Your task to perform on an android device: toggle data saver in the chrome app Image 0: 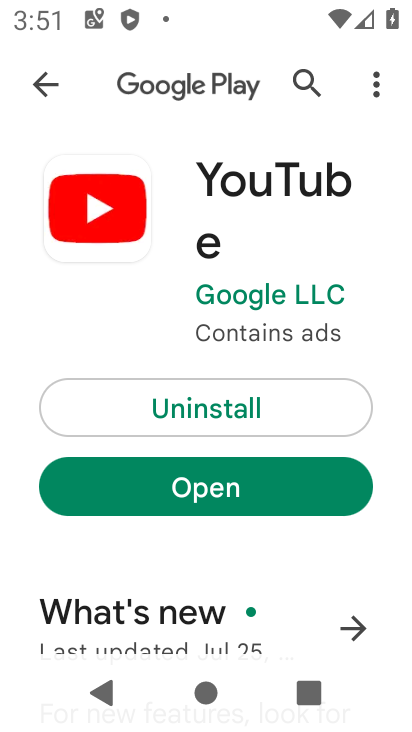
Step 0: press home button
Your task to perform on an android device: toggle data saver in the chrome app Image 1: 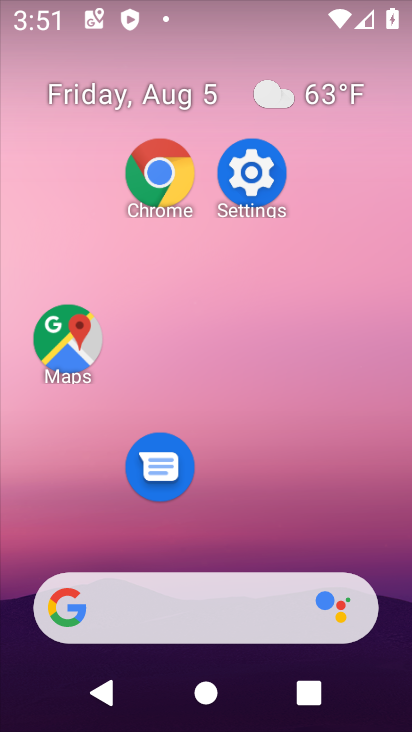
Step 1: click (161, 175)
Your task to perform on an android device: toggle data saver in the chrome app Image 2: 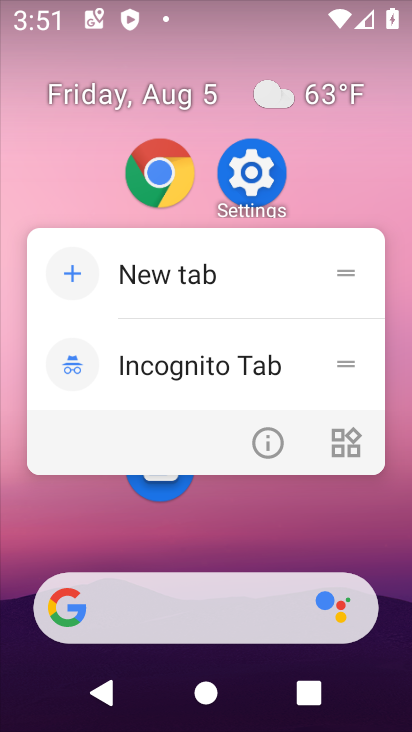
Step 2: click (265, 438)
Your task to perform on an android device: toggle data saver in the chrome app Image 3: 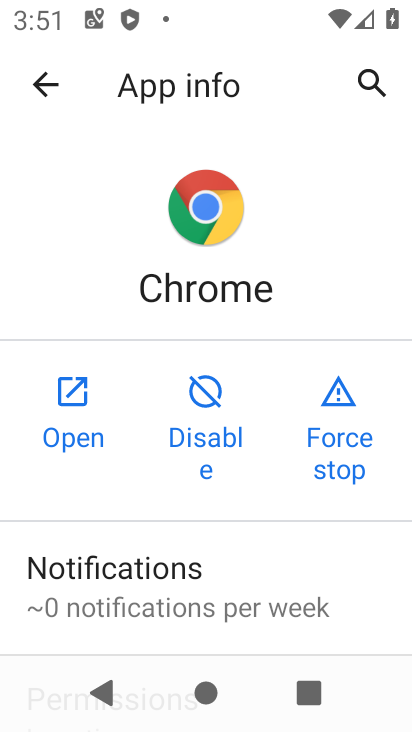
Step 3: click (45, 90)
Your task to perform on an android device: toggle data saver in the chrome app Image 4: 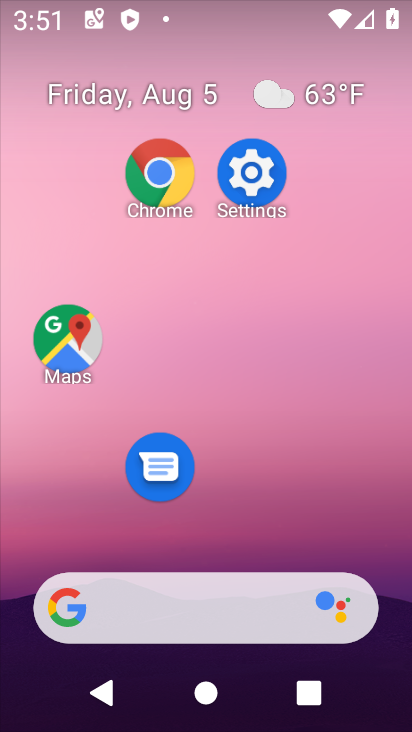
Step 4: click (164, 192)
Your task to perform on an android device: toggle data saver in the chrome app Image 5: 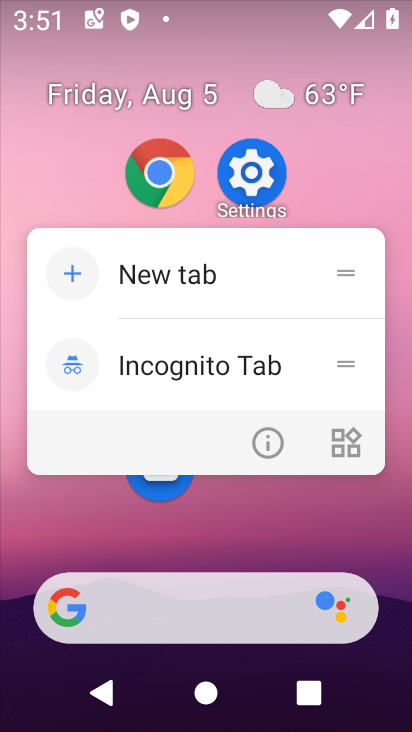
Step 5: click (164, 192)
Your task to perform on an android device: toggle data saver in the chrome app Image 6: 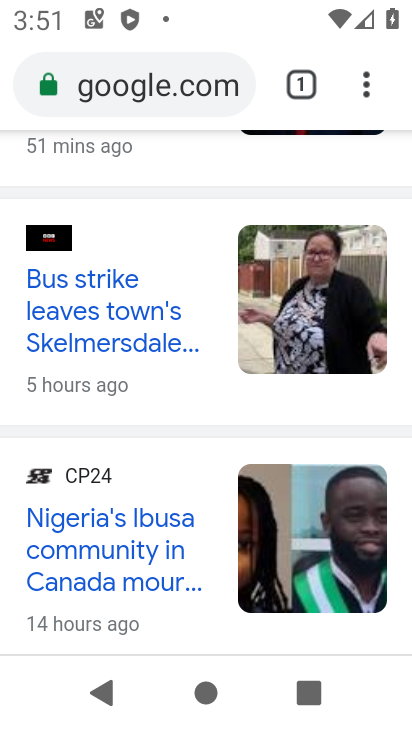
Step 6: drag from (339, 92) to (373, 677)
Your task to perform on an android device: toggle data saver in the chrome app Image 7: 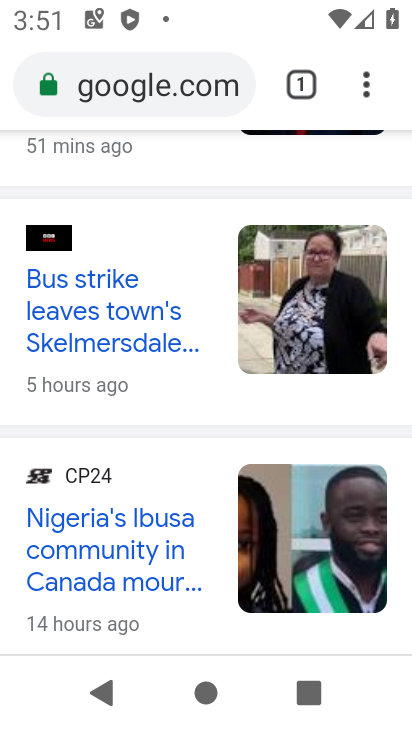
Step 7: drag from (369, 85) to (85, 530)
Your task to perform on an android device: toggle data saver in the chrome app Image 8: 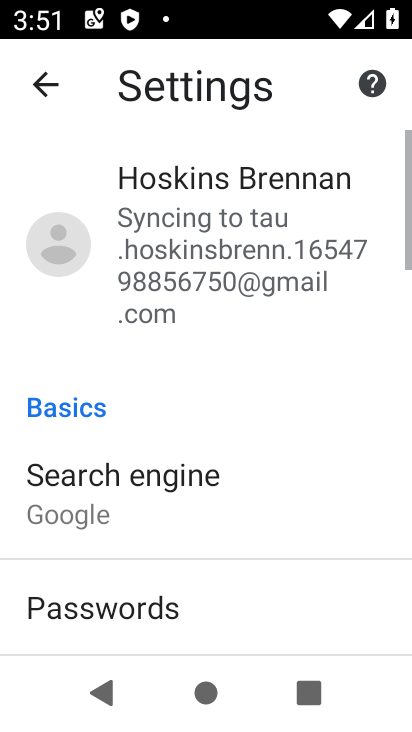
Step 8: drag from (205, 615) to (219, 265)
Your task to perform on an android device: toggle data saver in the chrome app Image 9: 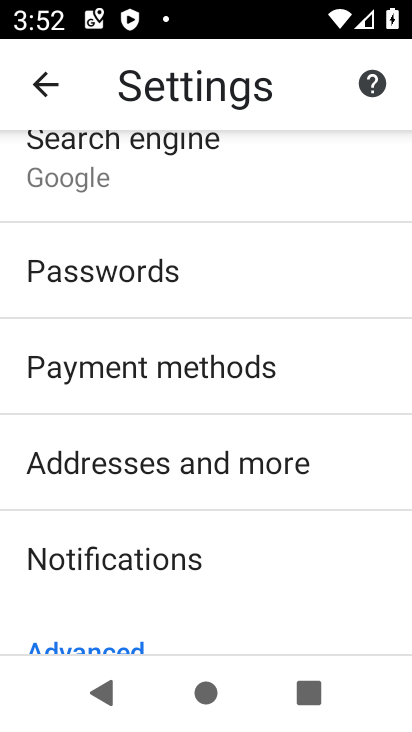
Step 9: drag from (182, 604) to (198, 345)
Your task to perform on an android device: toggle data saver in the chrome app Image 10: 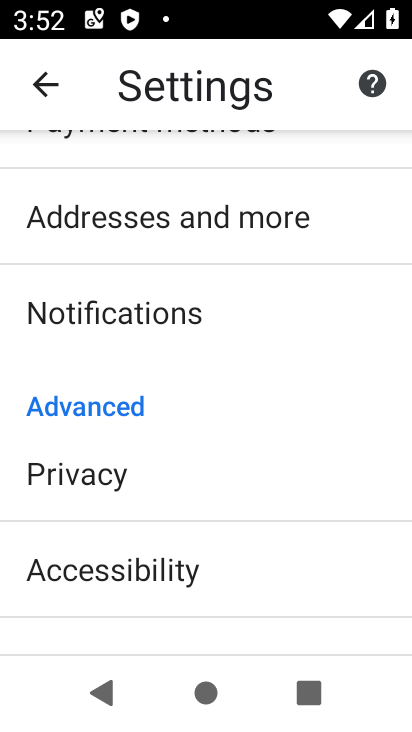
Step 10: drag from (171, 579) to (171, 370)
Your task to perform on an android device: toggle data saver in the chrome app Image 11: 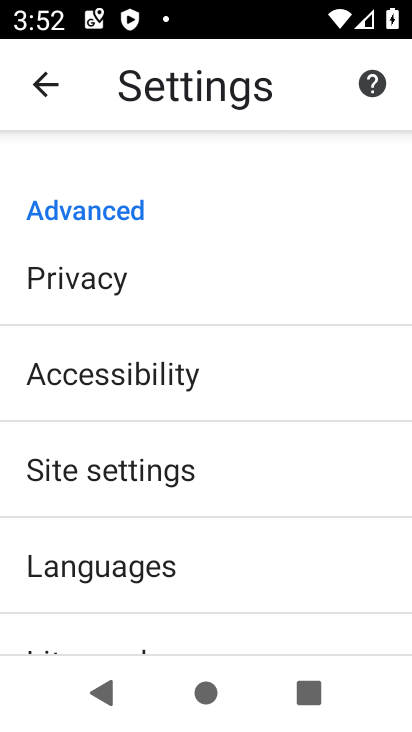
Step 11: drag from (159, 604) to (197, 250)
Your task to perform on an android device: toggle data saver in the chrome app Image 12: 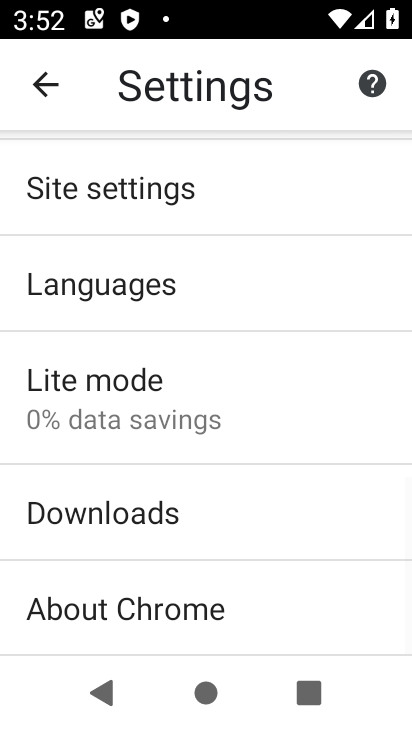
Step 12: click (119, 396)
Your task to perform on an android device: toggle data saver in the chrome app Image 13: 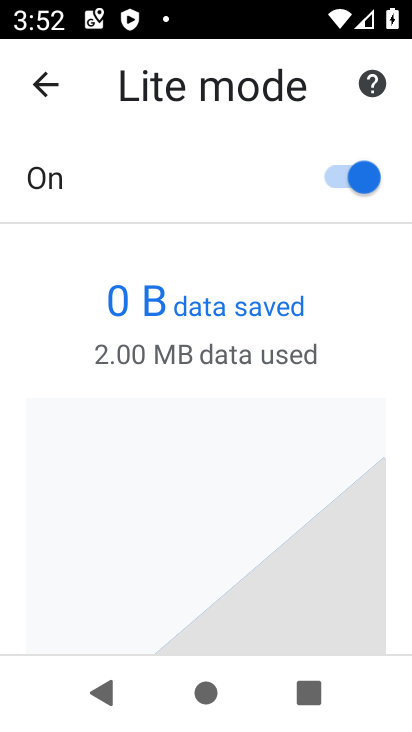
Step 13: click (239, 188)
Your task to perform on an android device: toggle data saver in the chrome app Image 14: 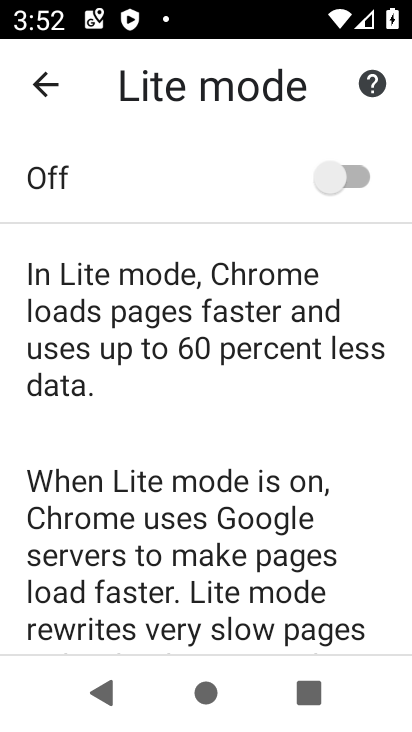
Step 14: task complete